Your task to perform on an android device: Open settings on Google Maps Image 0: 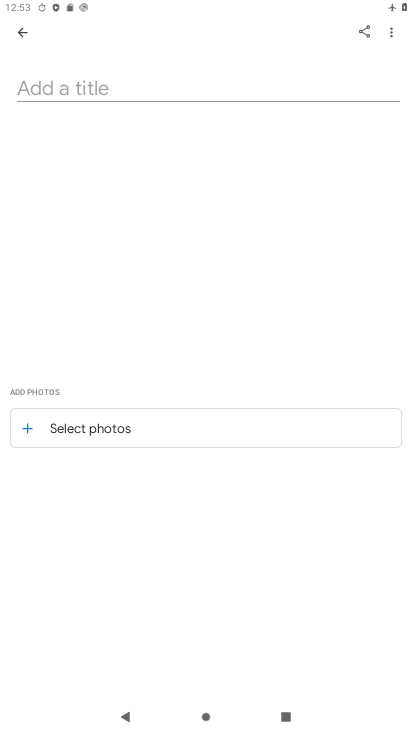
Step 0: press home button
Your task to perform on an android device: Open settings on Google Maps Image 1: 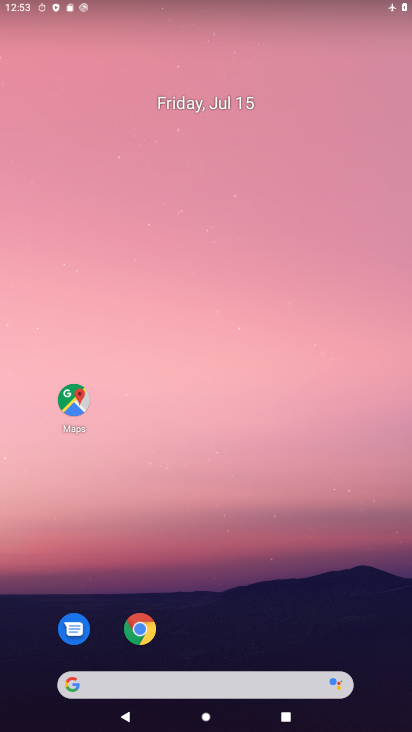
Step 1: drag from (188, 567) to (141, 134)
Your task to perform on an android device: Open settings on Google Maps Image 2: 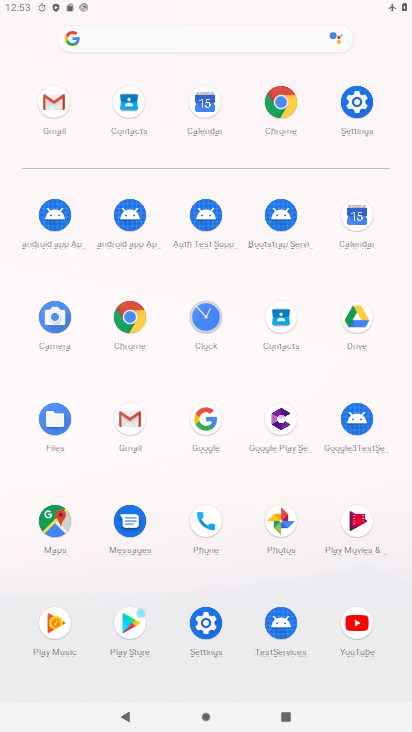
Step 2: click (134, 434)
Your task to perform on an android device: Open settings on Google Maps Image 3: 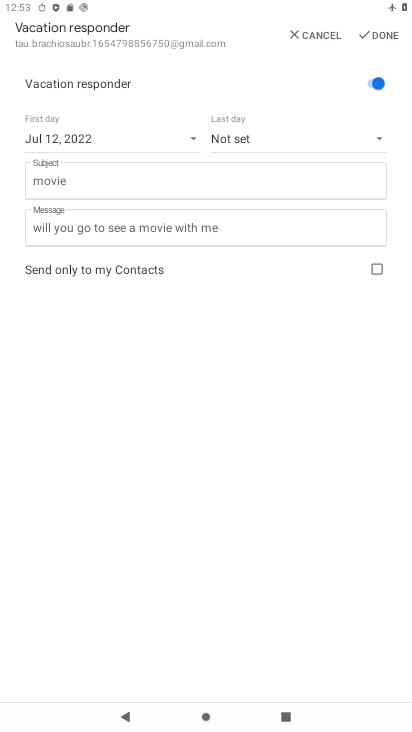
Step 3: press home button
Your task to perform on an android device: Open settings on Google Maps Image 4: 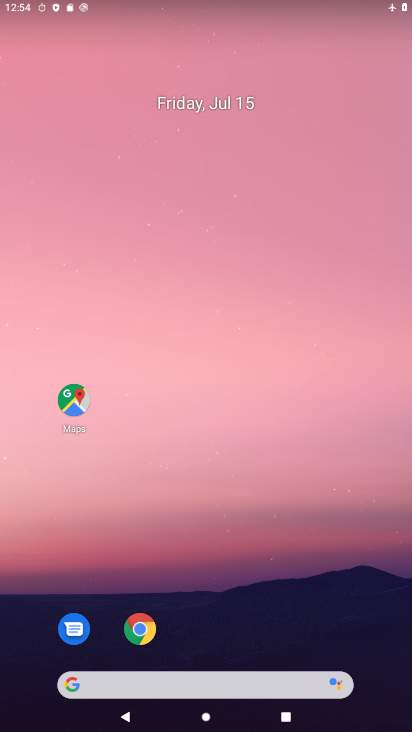
Step 4: click (78, 413)
Your task to perform on an android device: Open settings on Google Maps Image 5: 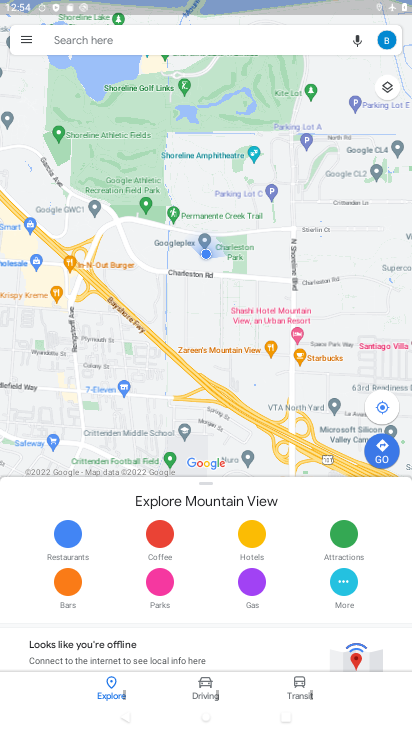
Step 5: click (27, 39)
Your task to perform on an android device: Open settings on Google Maps Image 6: 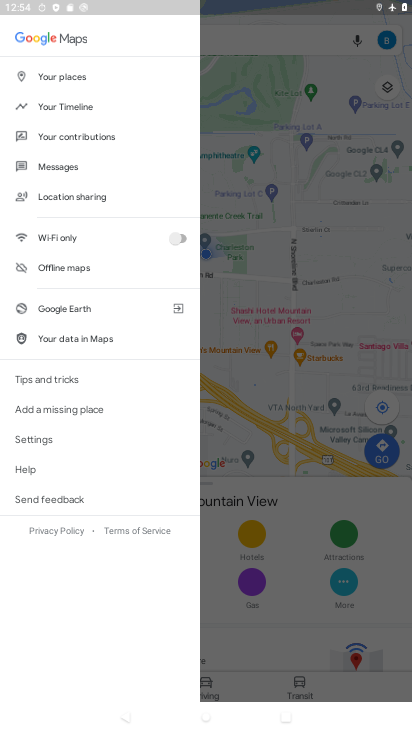
Step 6: click (53, 444)
Your task to perform on an android device: Open settings on Google Maps Image 7: 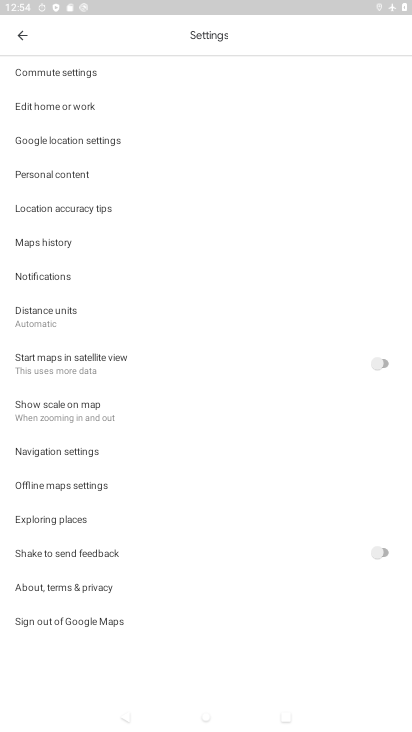
Step 7: task complete